Your task to perform on an android device: change keyboard looks Image 0: 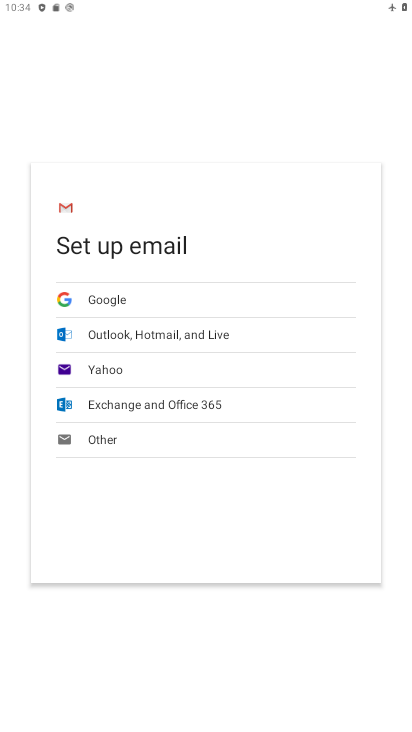
Step 0: press back button
Your task to perform on an android device: change keyboard looks Image 1: 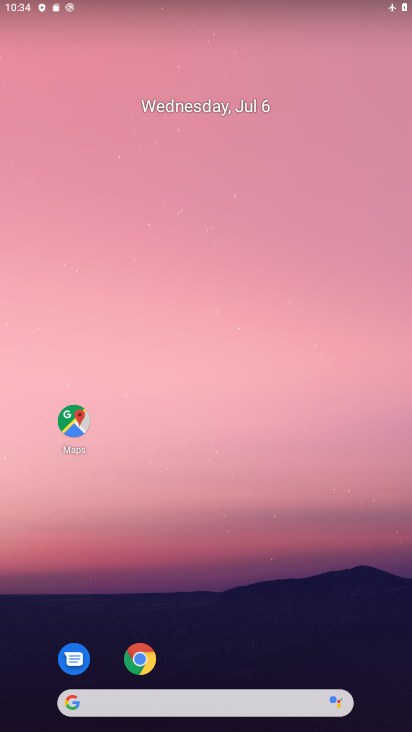
Step 1: drag from (237, 690) to (267, 55)
Your task to perform on an android device: change keyboard looks Image 2: 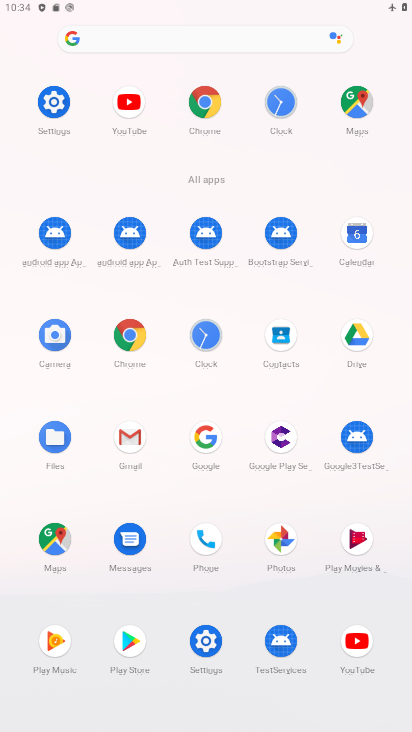
Step 2: click (57, 98)
Your task to perform on an android device: change keyboard looks Image 3: 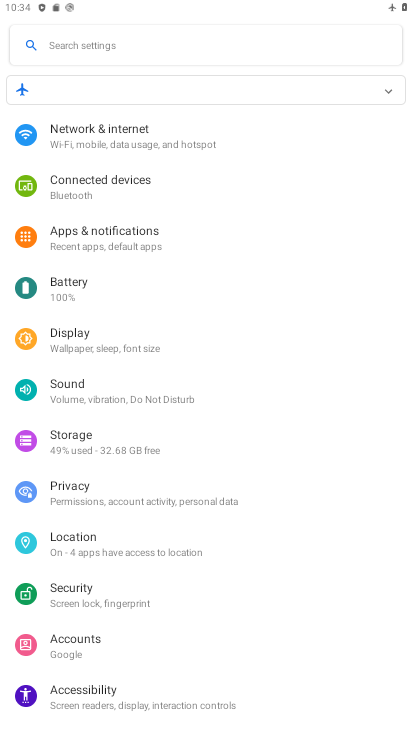
Step 3: drag from (160, 658) to (230, 38)
Your task to perform on an android device: change keyboard looks Image 4: 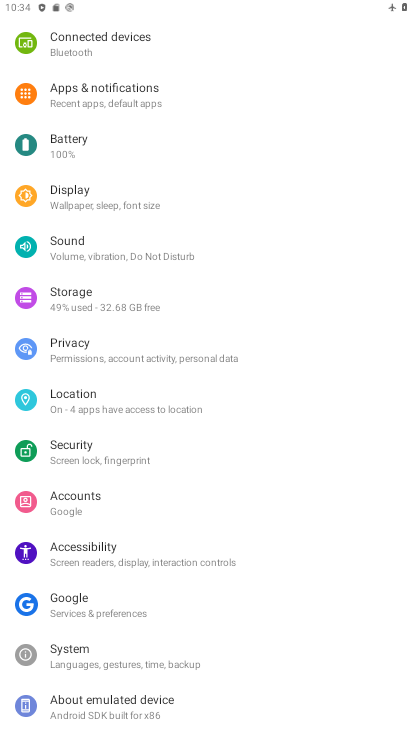
Step 4: click (163, 646)
Your task to perform on an android device: change keyboard looks Image 5: 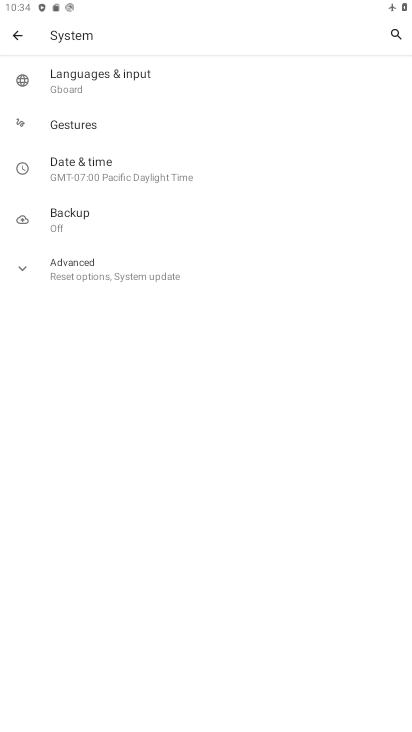
Step 5: click (114, 84)
Your task to perform on an android device: change keyboard looks Image 6: 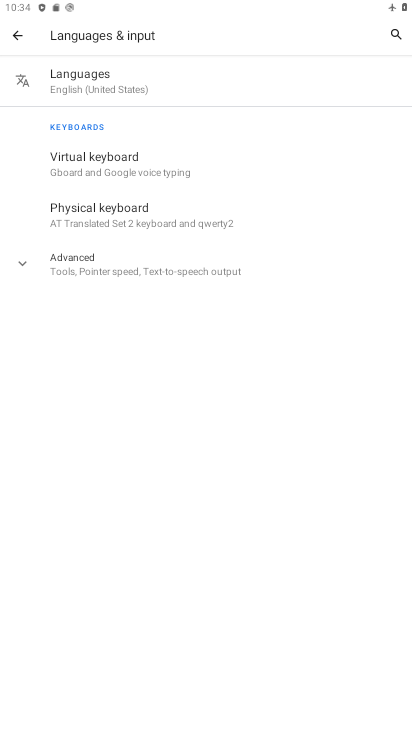
Step 6: click (136, 156)
Your task to perform on an android device: change keyboard looks Image 7: 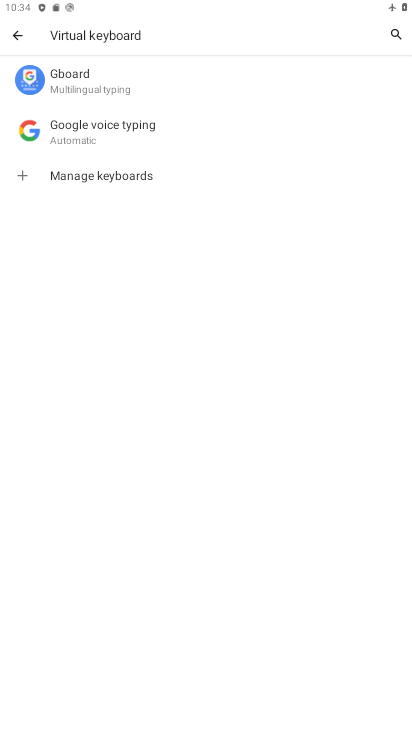
Step 7: click (96, 77)
Your task to perform on an android device: change keyboard looks Image 8: 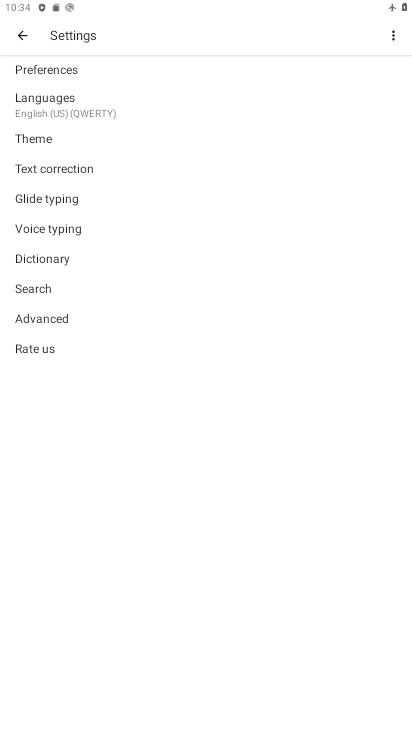
Step 8: click (55, 128)
Your task to perform on an android device: change keyboard looks Image 9: 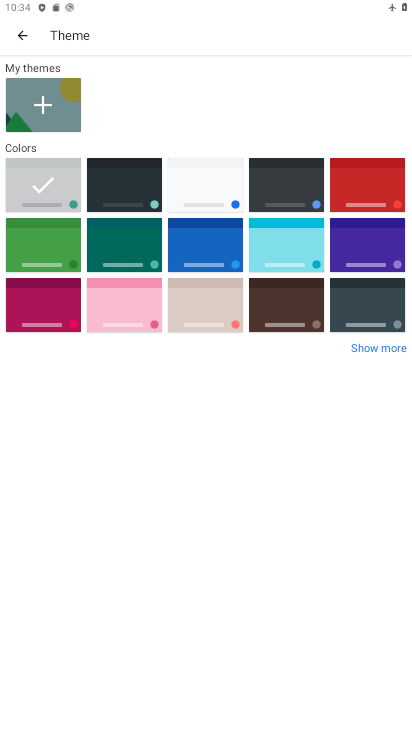
Step 9: click (40, 315)
Your task to perform on an android device: change keyboard looks Image 10: 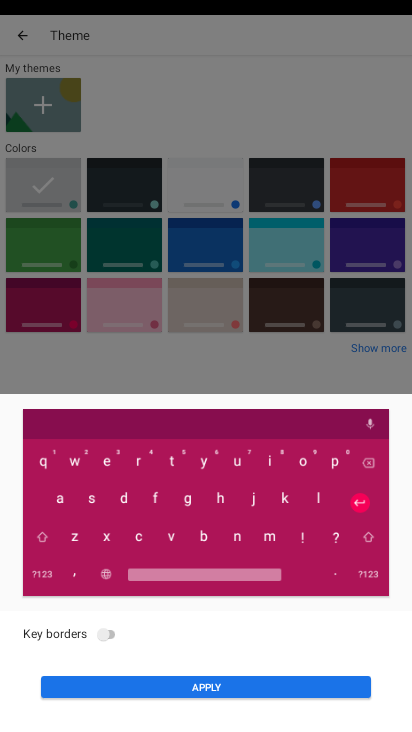
Step 10: click (112, 633)
Your task to perform on an android device: change keyboard looks Image 11: 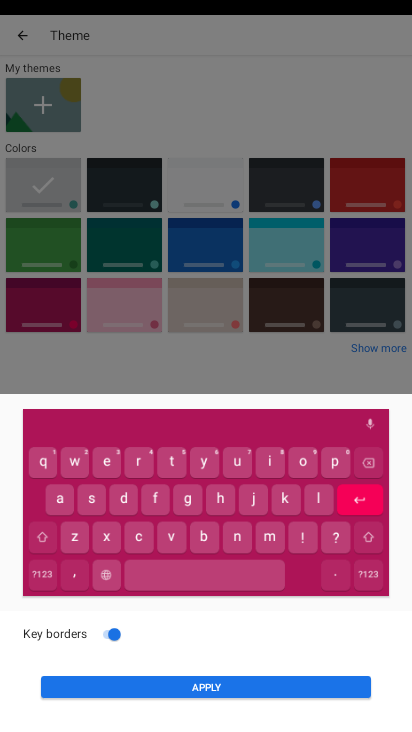
Step 11: click (200, 685)
Your task to perform on an android device: change keyboard looks Image 12: 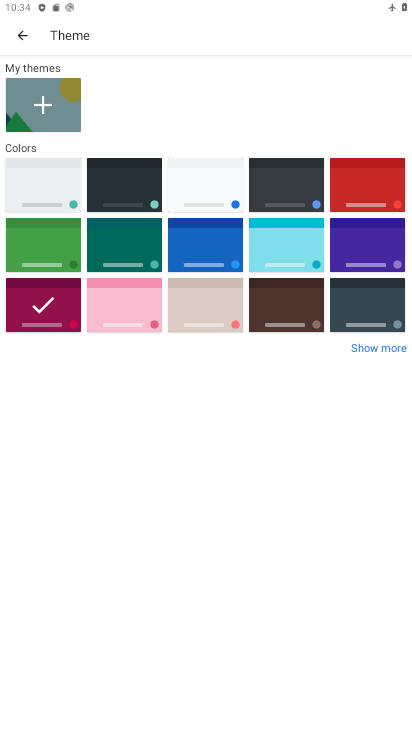
Step 12: task complete